Your task to perform on an android device: What's the weather? Image 0: 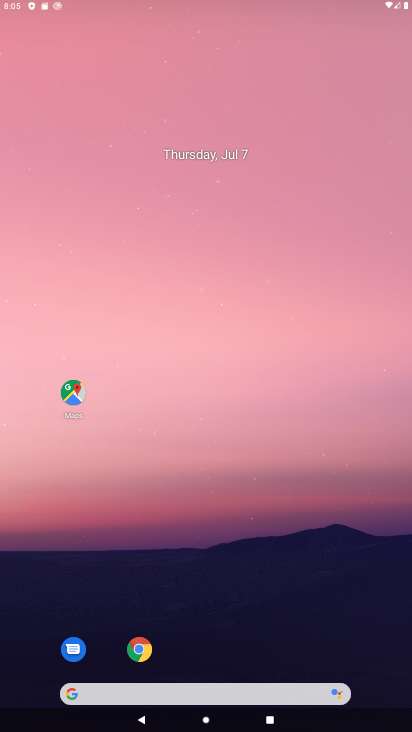
Step 0: drag from (223, 606) to (171, 252)
Your task to perform on an android device: What's the weather? Image 1: 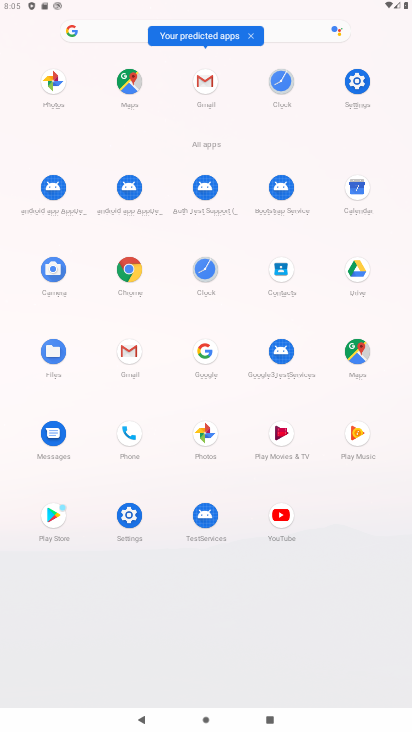
Step 1: click (201, 354)
Your task to perform on an android device: What's the weather? Image 2: 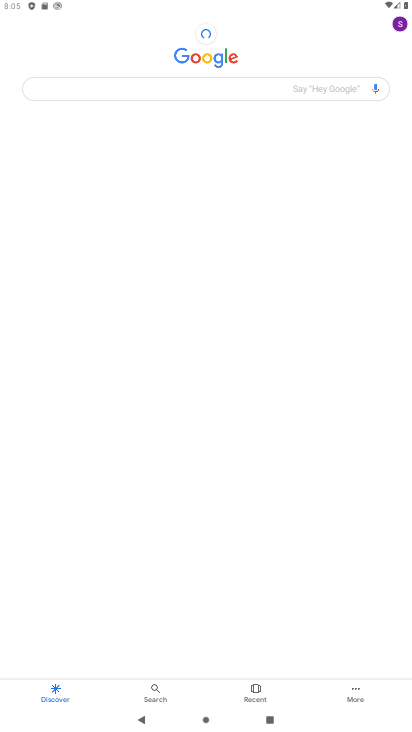
Step 2: click (193, 91)
Your task to perform on an android device: What's the weather? Image 3: 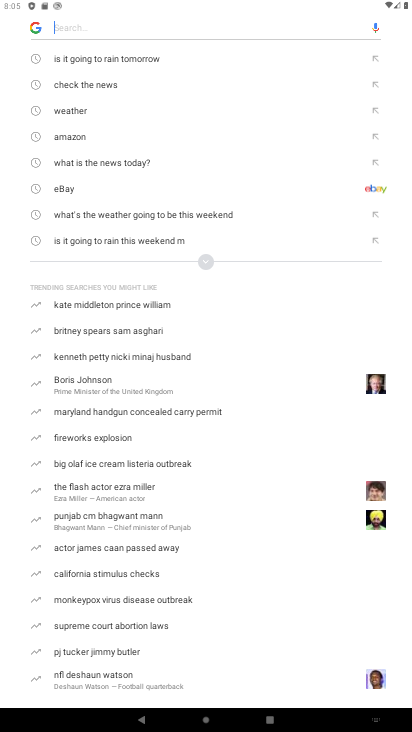
Step 3: click (68, 109)
Your task to perform on an android device: What's the weather? Image 4: 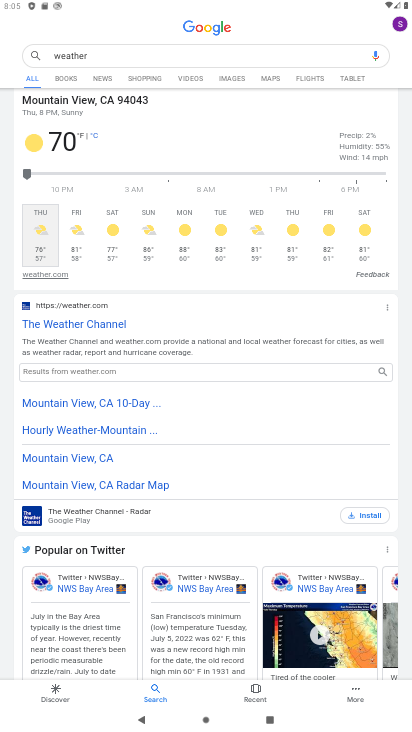
Step 4: task complete